Your task to perform on an android device: add a label to a message in the gmail app Image 0: 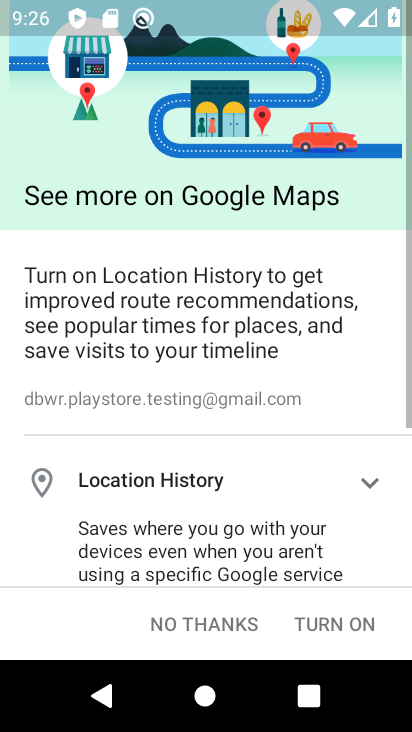
Step 0: press home button
Your task to perform on an android device: add a label to a message in the gmail app Image 1: 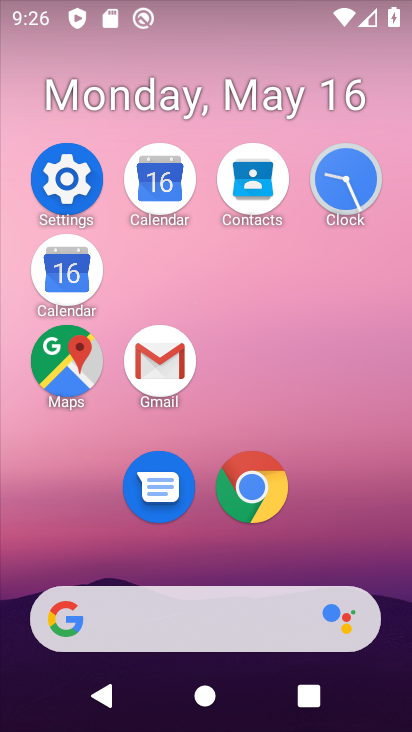
Step 1: click (158, 375)
Your task to perform on an android device: add a label to a message in the gmail app Image 2: 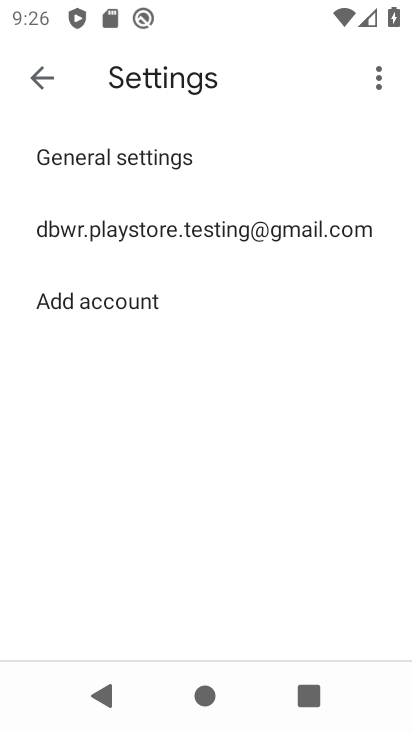
Step 2: click (38, 85)
Your task to perform on an android device: add a label to a message in the gmail app Image 3: 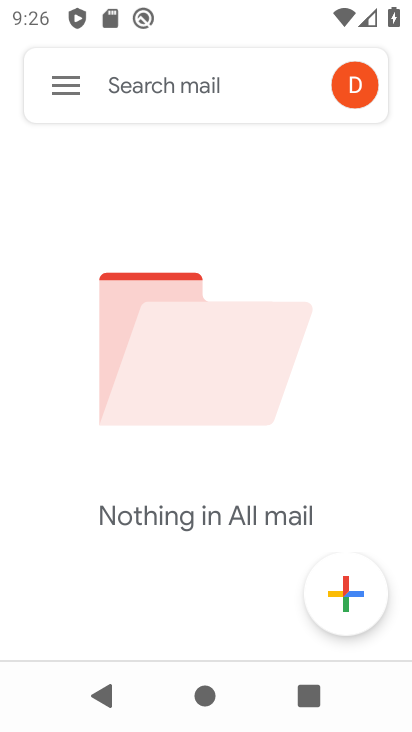
Step 3: click (69, 74)
Your task to perform on an android device: add a label to a message in the gmail app Image 4: 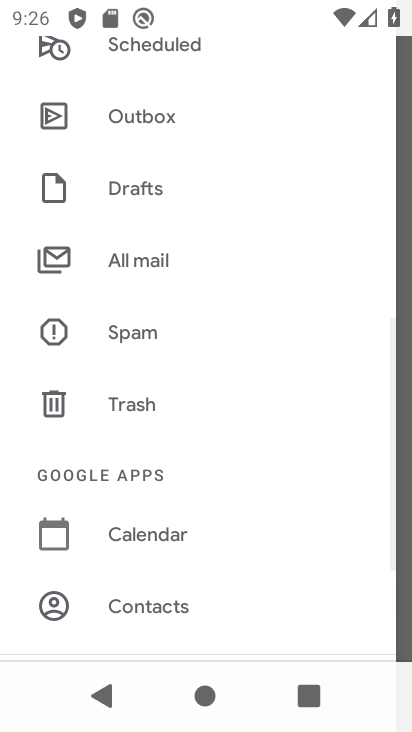
Step 4: click (232, 253)
Your task to perform on an android device: add a label to a message in the gmail app Image 5: 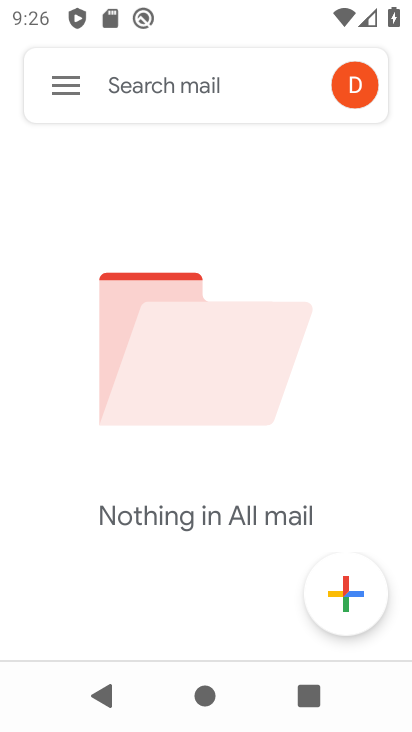
Step 5: task complete